Your task to perform on an android device: Open internet settings Image 0: 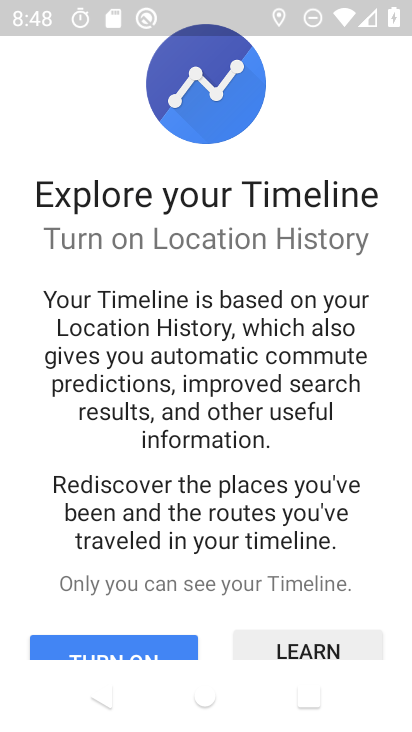
Step 0: press home button
Your task to perform on an android device: Open internet settings Image 1: 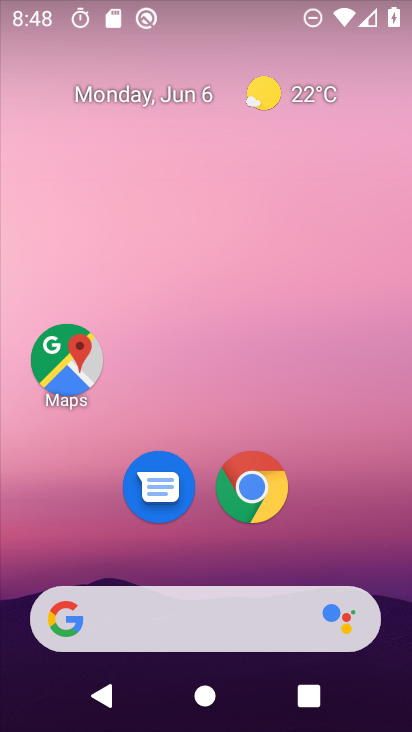
Step 1: drag from (398, 603) to (299, 103)
Your task to perform on an android device: Open internet settings Image 2: 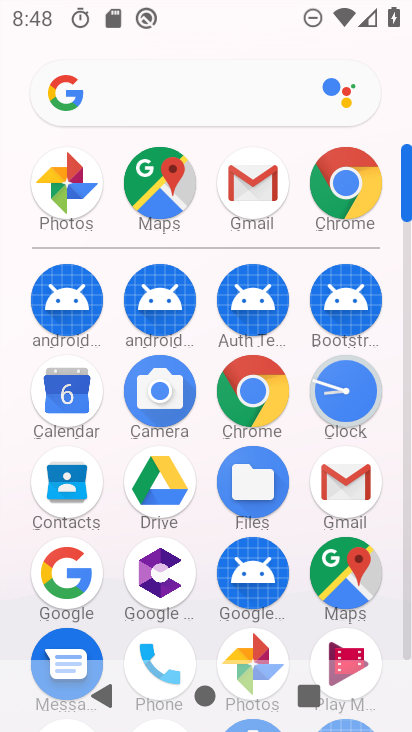
Step 2: drag from (199, 618) to (199, 275)
Your task to perform on an android device: Open internet settings Image 3: 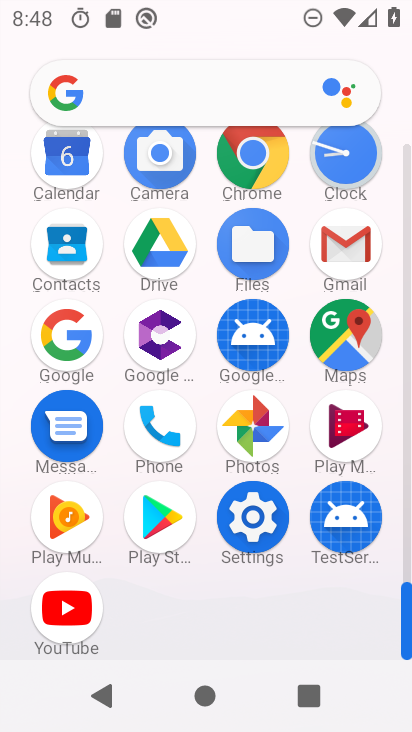
Step 3: click (254, 522)
Your task to perform on an android device: Open internet settings Image 4: 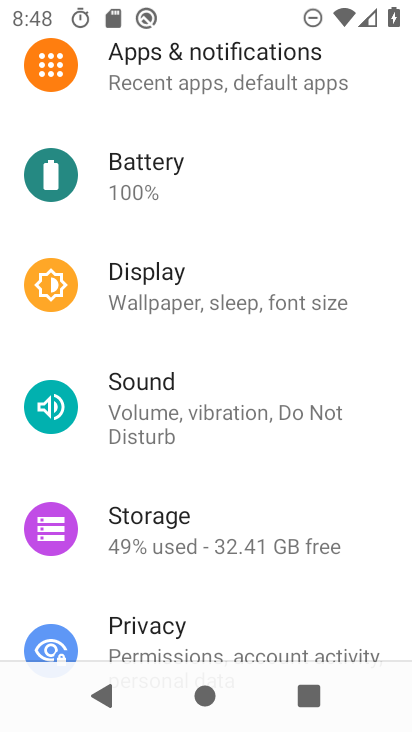
Step 4: drag from (196, 116) to (206, 631)
Your task to perform on an android device: Open internet settings Image 5: 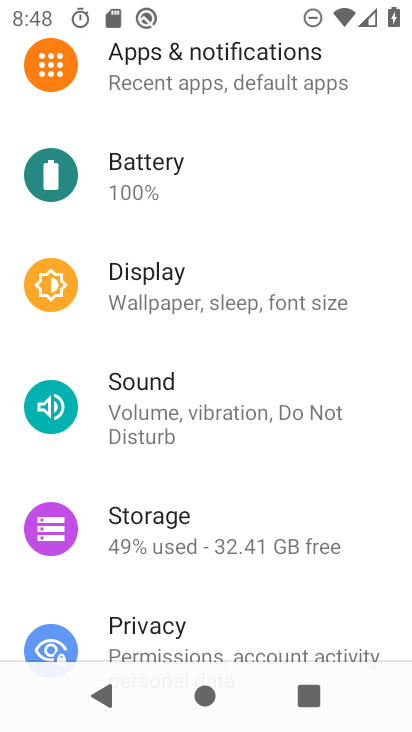
Step 5: drag from (163, 138) to (206, 571)
Your task to perform on an android device: Open internet settings Image 6: 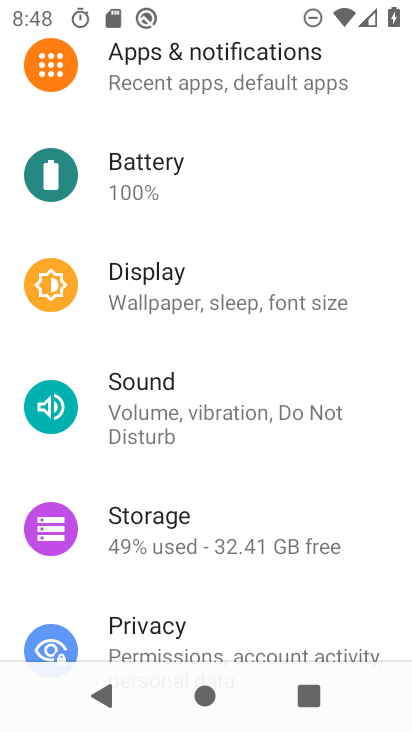
Step 6: drag from (269, 119) to (304, 577)
Your task to perform on an android device: Open internet settings Image 7: 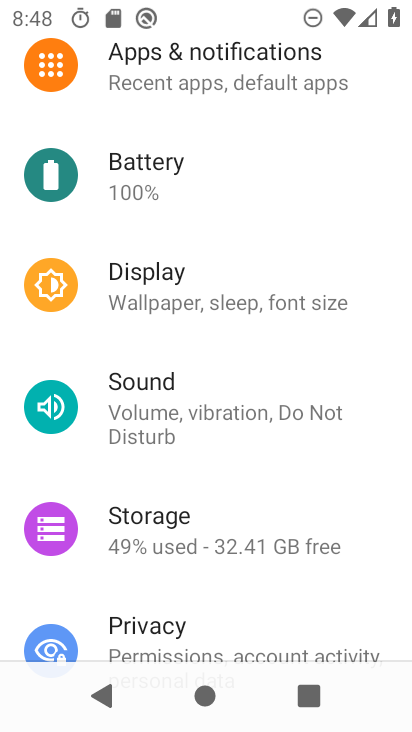
Step 7: drag from (134, 156) to (193, 676)
Your task to perform on an android device: Open internet settings Image 8: 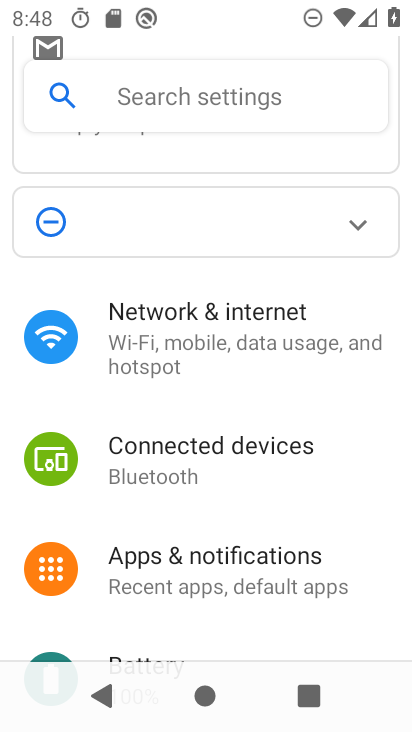
Step 8: click (208, 351)
Your task to perform on an android device: Open internet settings Image 9: 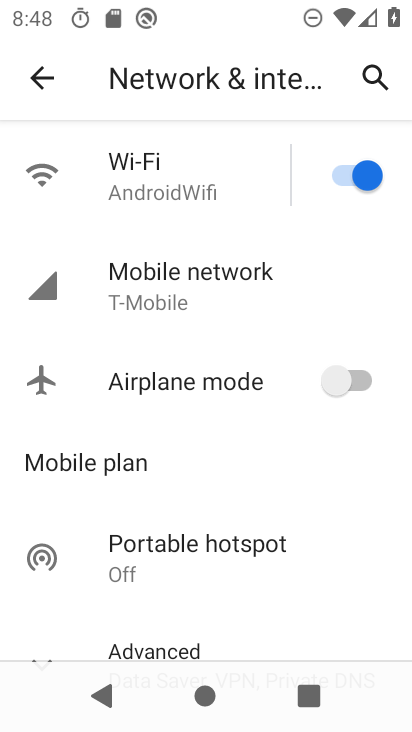
Step 9: task complete